Your task to perform on an android device: turn off data saver in the chrome app Image 0: 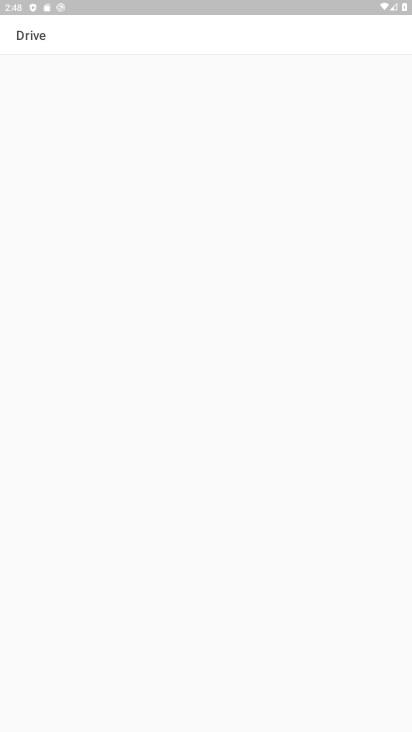
Step 0: press home button
Your task to perform on an android device: turn off data saver in the chrome app Image 1: 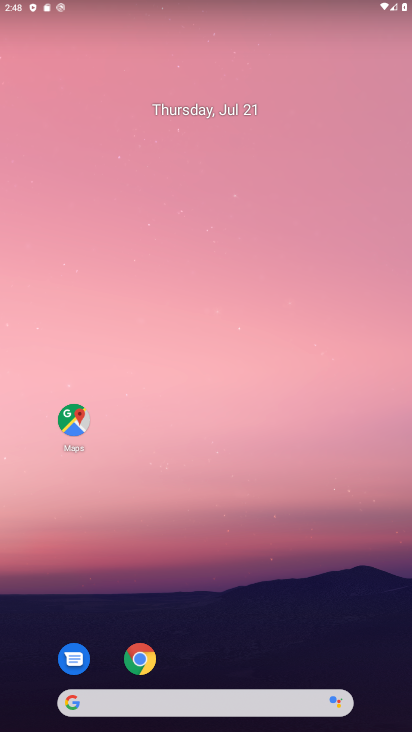
Step 1: click (139, 653)
Your task to perform on an android device: turn off data saver in the chrome app Image 2: 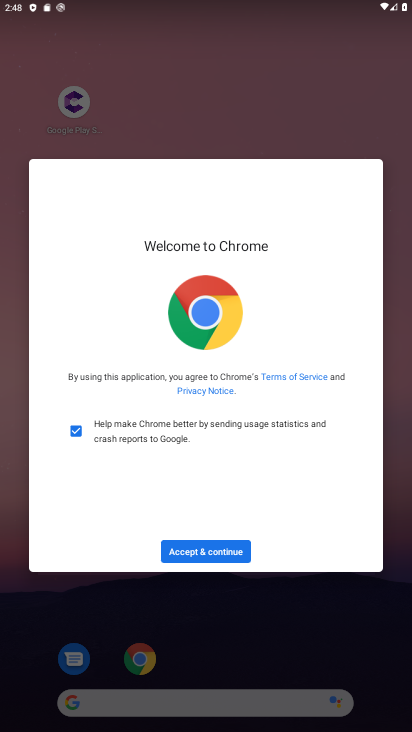
Step 2: click (214, 554)
Your task to perform on an android device: turn off data saver in the chrome app Image 3: 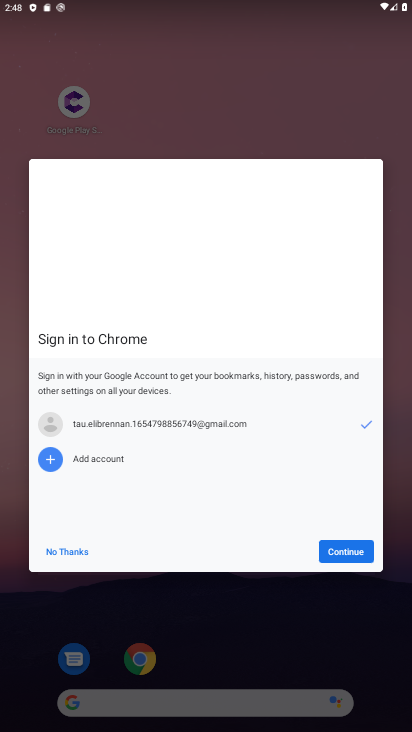
Step 3: click (341, 549)
Your task to perform on an android device: turn off data saver in the chrome app Image 4: 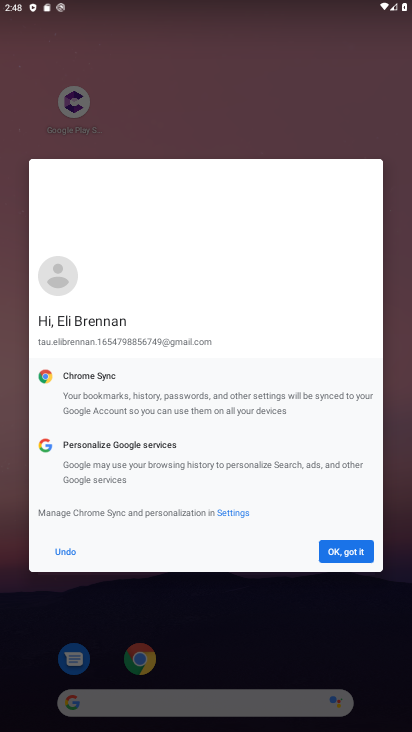
Step 4: click (341, 549)
Your task to perform on an android device: turn off data saver in the chrome app Image 5: 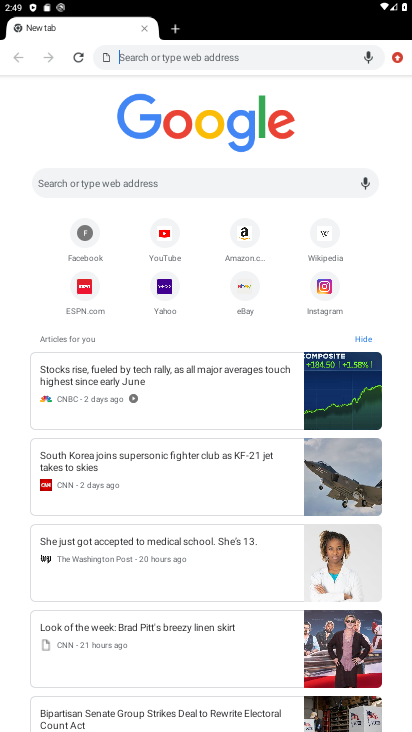
Step 5: click (400, 53)
Your task to perform on an android device: turn off data saver in the chrome app Image 6: 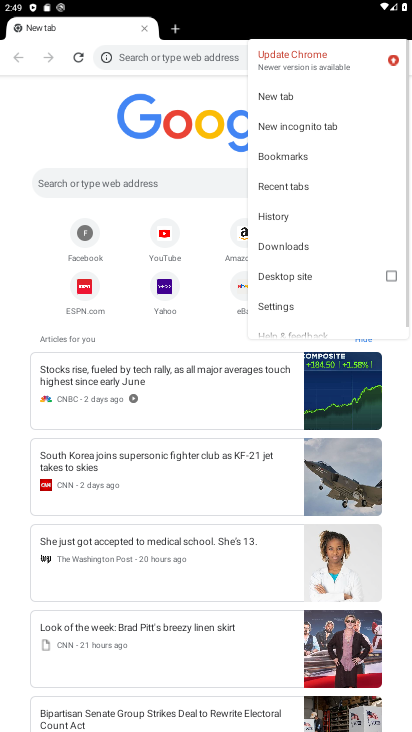
Step 6: click (400, 53)
Your task to perform on an android device: turn off data saver in the chrome app Image 7: 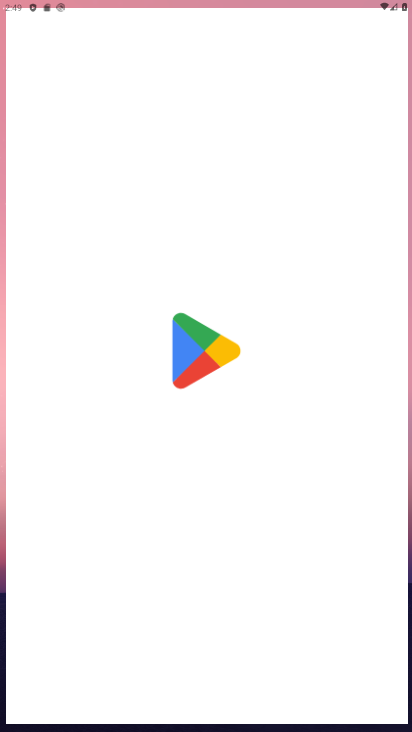
Step 7: click (400, 53)
Your task to perform on an android device: turn off data saver in the chrome app Image 8: 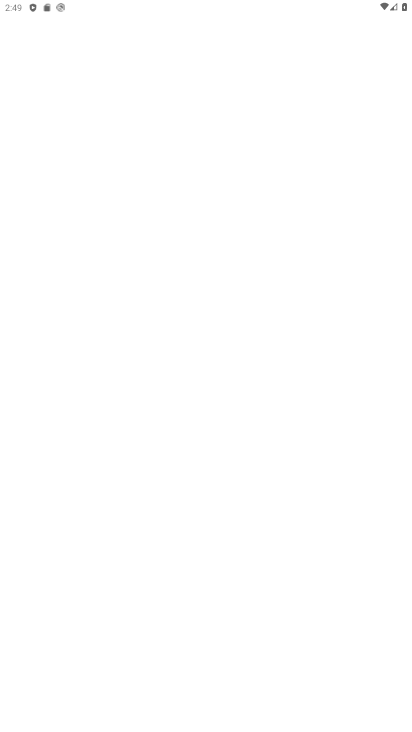
Step 8: press back button
Your task to perform on an android device: turn off data saver in the chrome app Image 9: 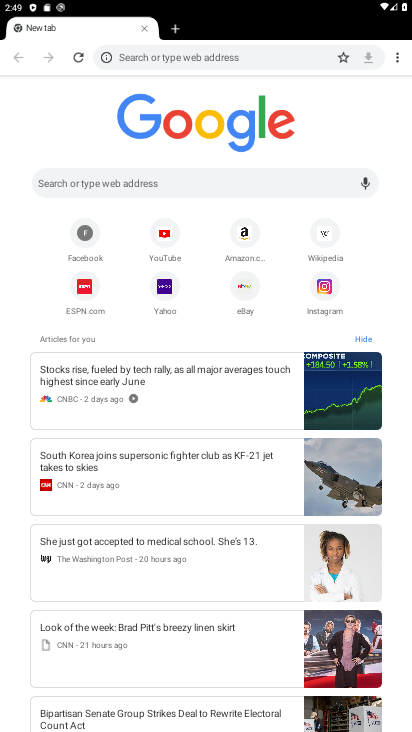
Step 9: click (401, 64)
Your task to perform on an android device: turn off data saver in the chrome app Image 10: 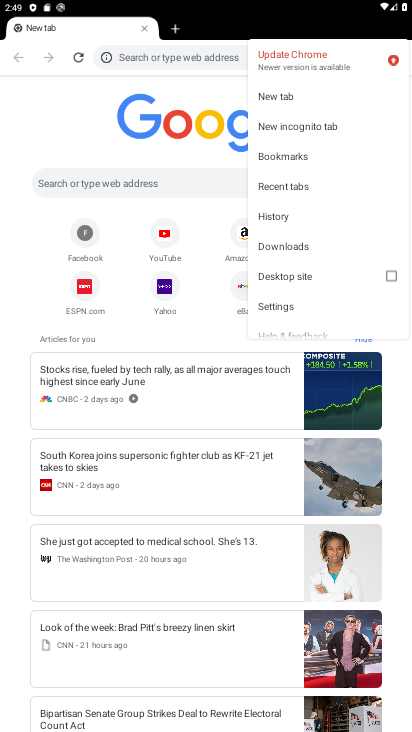
Step 10: click (308, 308)
Your task to perform on an android device: turn off data saver in the chrome app Image 11: 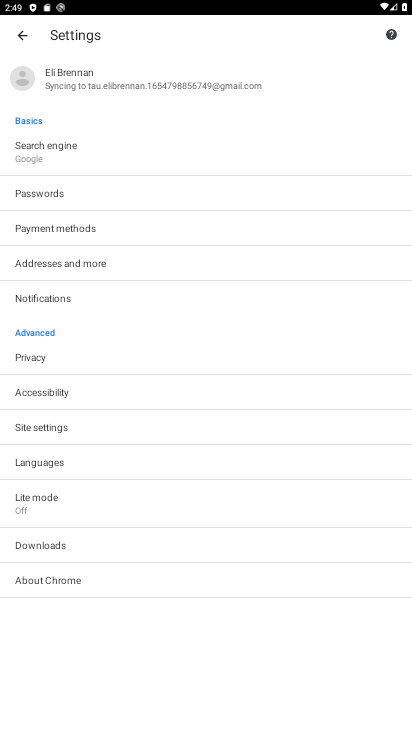
Step 11: click (31, 498)
Your task to perform on an android device: turn off data saver in the chrome app Image 12: 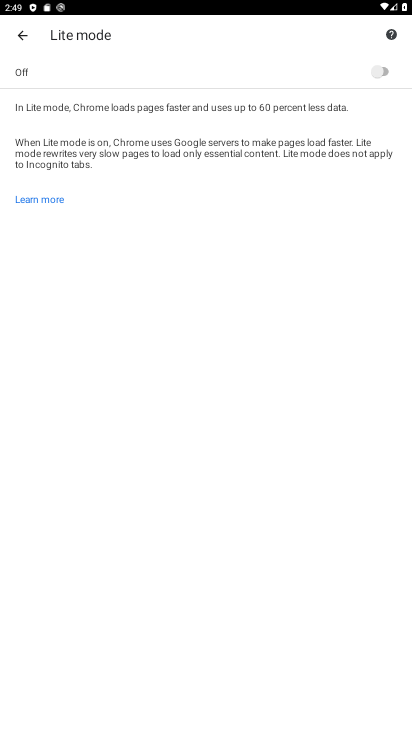
Step 12: task complete